Your task to perform on an android device: Open maps Image 0: 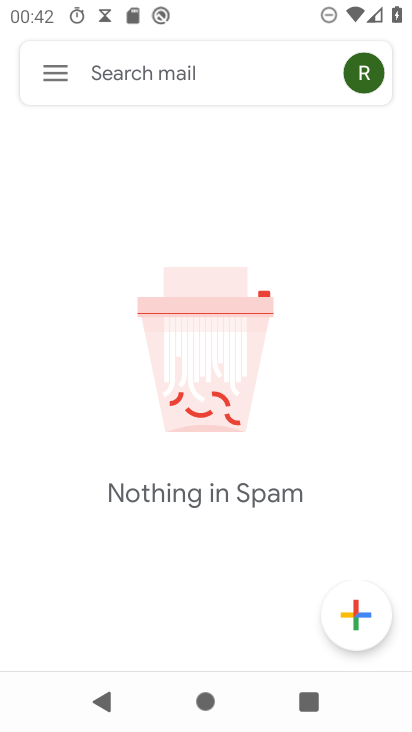
Step 0: press home button
Your task to perform on an android device: Open maps Image 1: 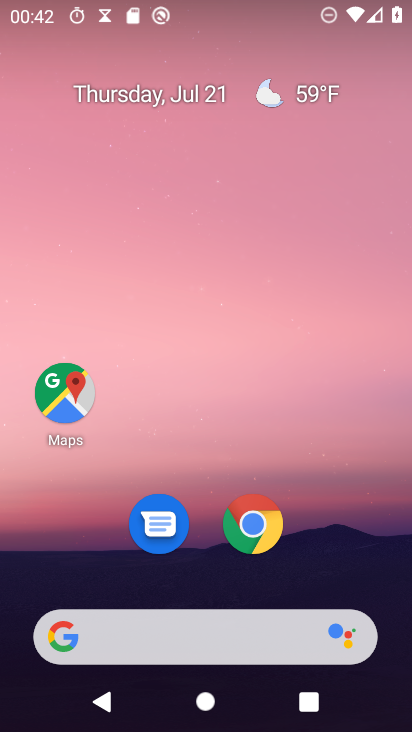
Step 1: click (66, 405)
Your task to perform on an android device: Open maps Image 2: 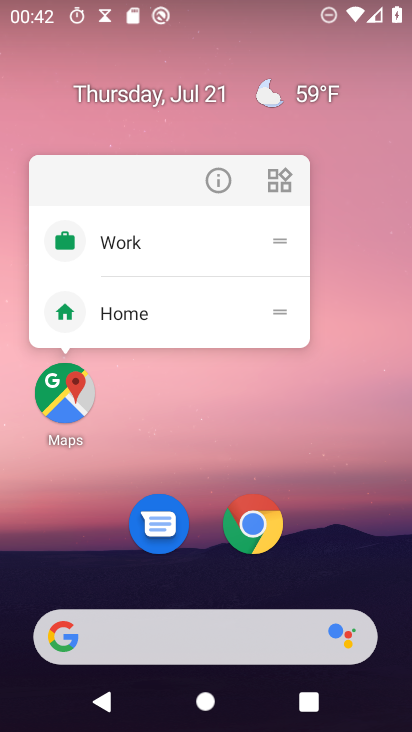
Step 2: click (66, 404)
Your task to perform on an android device: Open maps Image 3: 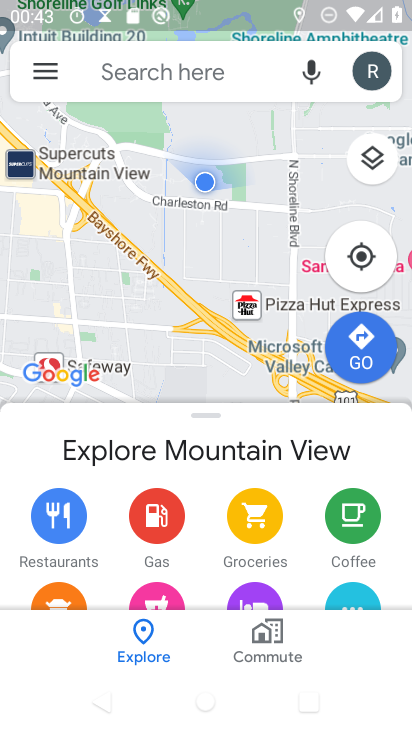
Step 3: task complete